Your task to perform on an android device: Open network settings Image 0: 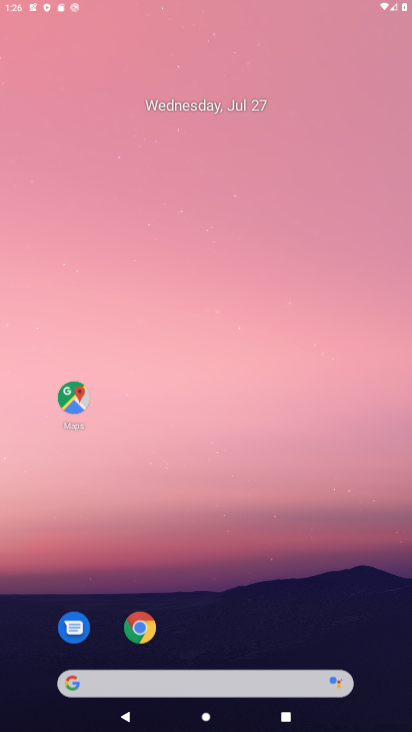
Step 0: click (226, 102)
Your task to perform on an android device: Open network settings Image 1: 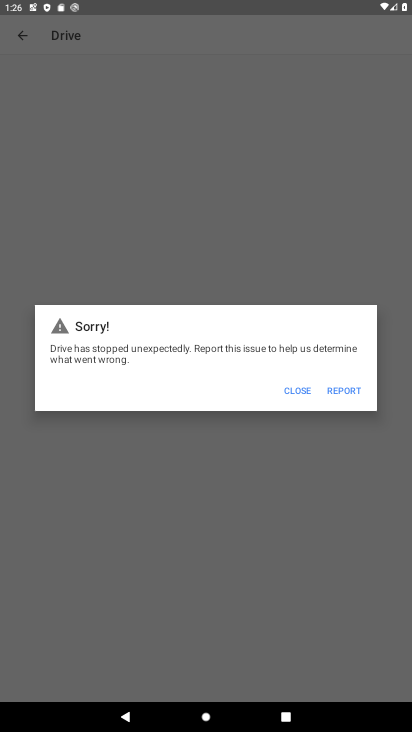
Step 1: press home button
Your task to perform on an android device: Open network settings Image 2: 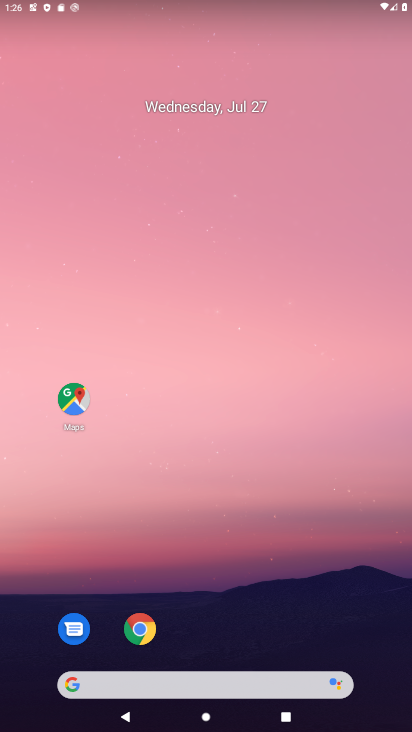
Step 2: drag from (221, 619) to (209, 163)
Your task to perform on an android device: Open network settings Image 3: 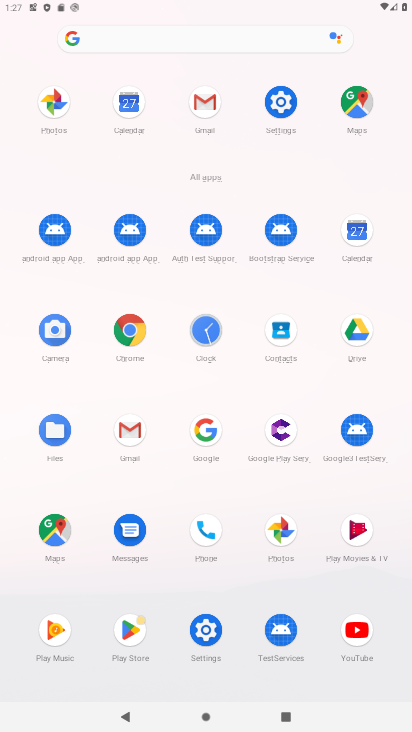
Step 3: click (281, 113)
Your task to perform on an android device: Open network settings Image 4: 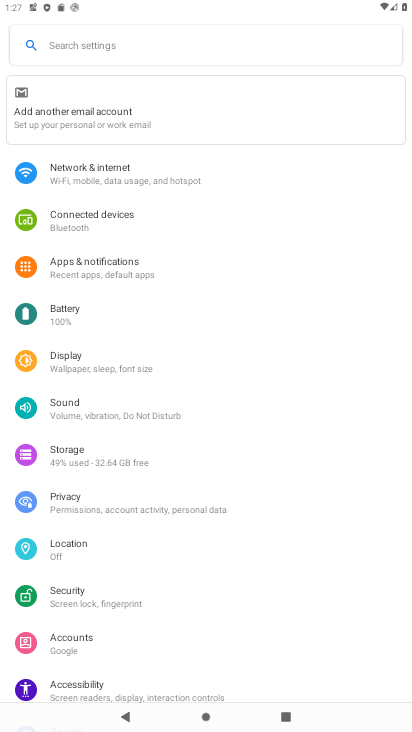
Step 4: click (213, 163)
Your task to perform on an android device: Open network settings Image 5: 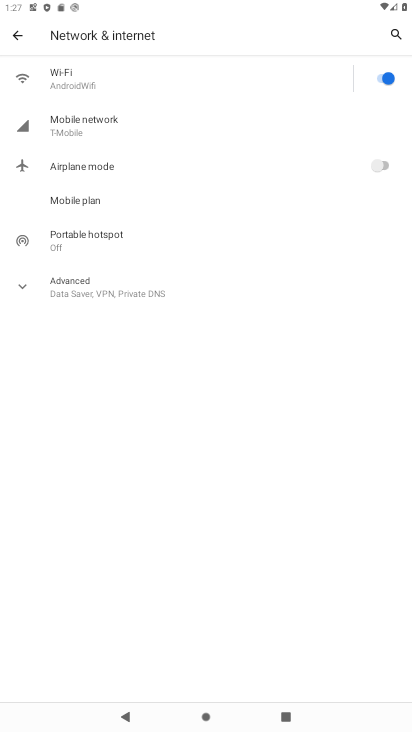
Step 5: task complete